Your task to perform on an android device: Show me recent news Image 0: 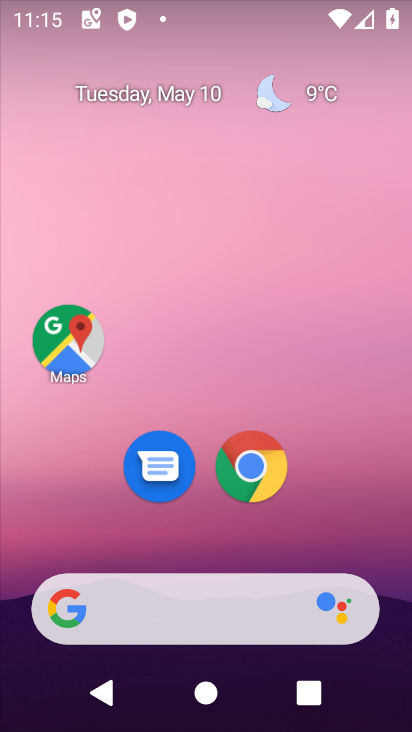
Step 0: drag from (327, 510) to (95, 9)
Your task to perform on an android device: Show me recent news Image 1: 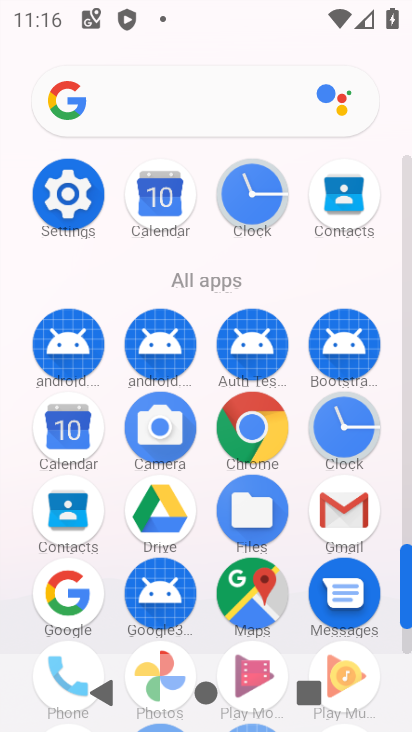
Step 1: click (112, 126)
Your task to perform on an android device: Show me recent news Image 2: 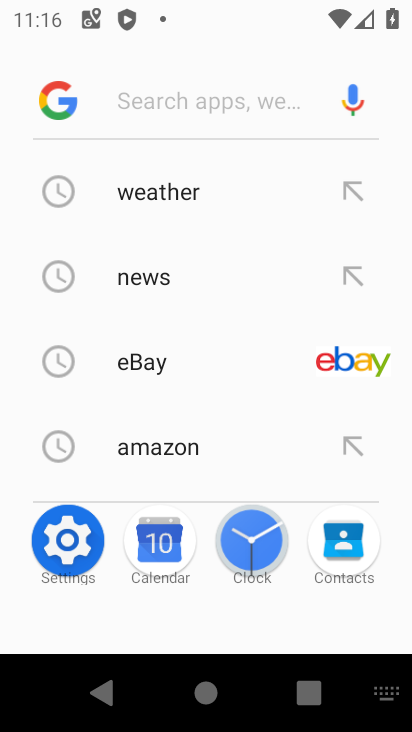
Step 2: type "recent news"
Your task to perform on an android device: Show me recent news Image 3: 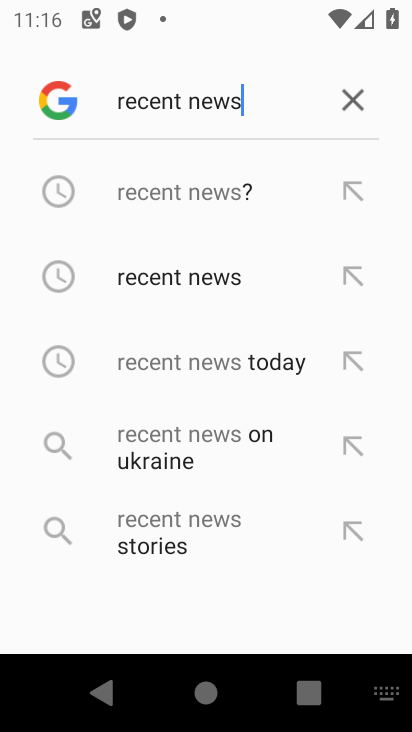
Step 3: click (174, 191)
Your task to perform on an android device: Show me recent news Image 4: 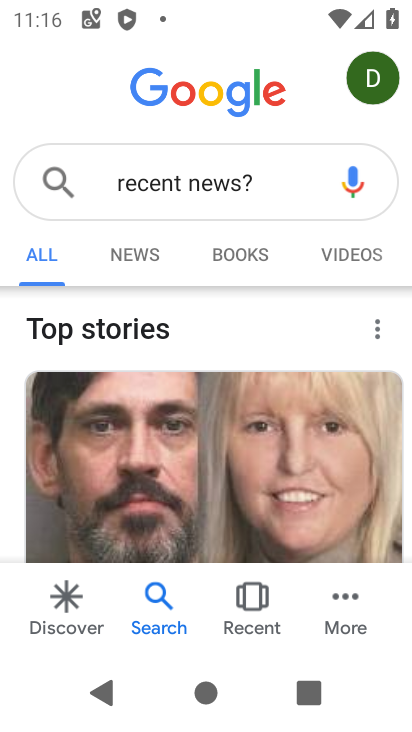
Step 4: click (128, 249)
Your task to perform on an android device: Show me recent news Image 5: 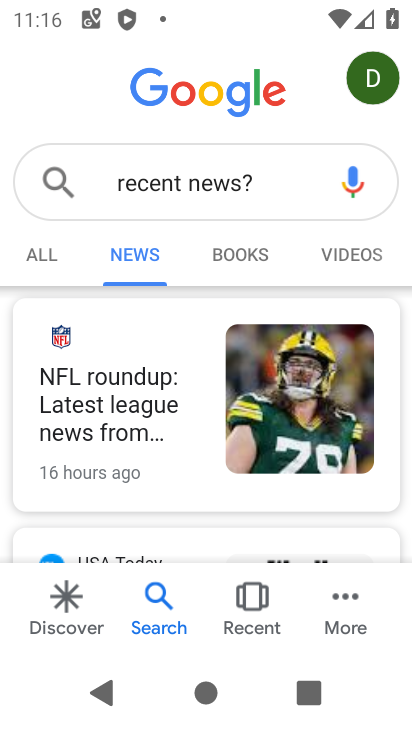
Step 5: task complete